Your task to perform on an android device: Open Yahoo.com Image 0: 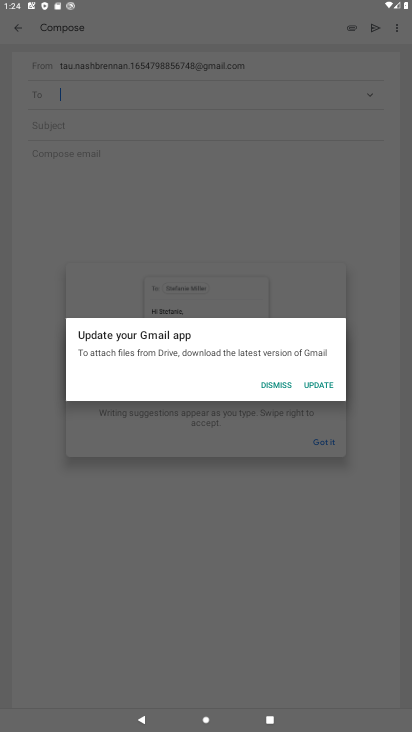
Step 0: press home button
Your task to perform on an android device: Open Yahoo.com Image 1: 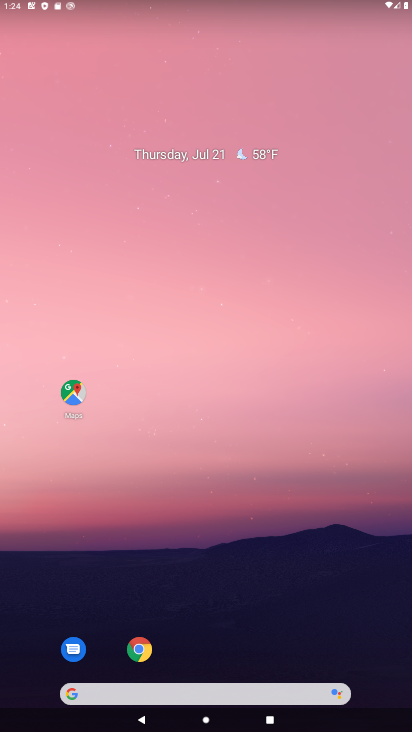
Step 1: drag from (288, 657) to (297, 90)
Your task to perform on an android device: Open Yahoo.com Image 2: 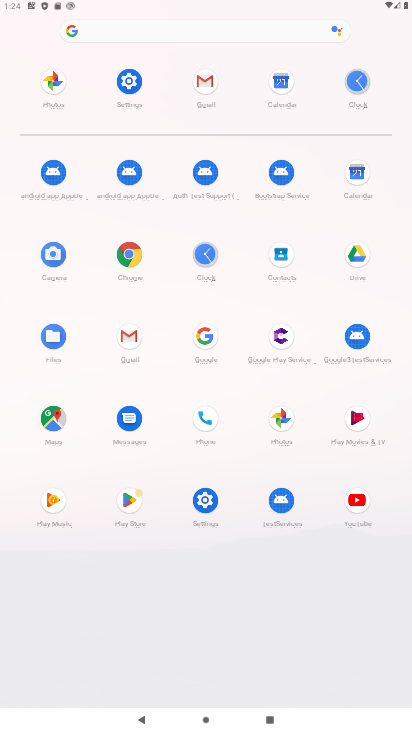
Step 2: click (120, 24)
Your task to perform on an android device: Open Yahoo.com Image 3: 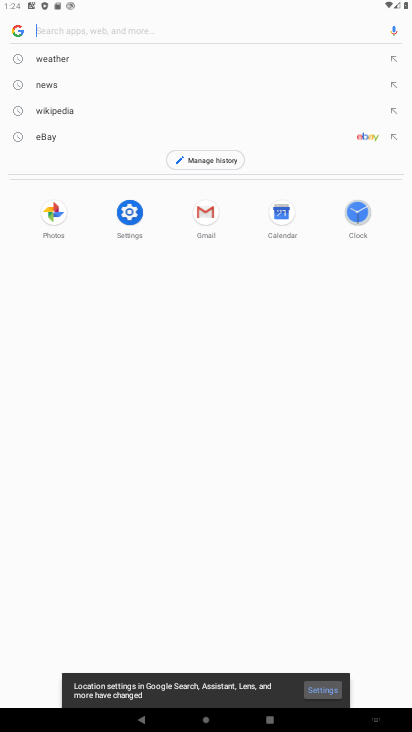
Step 3: type "yahho.com"
Your task to perform on an android device: Open Yahoo.com Image 4: 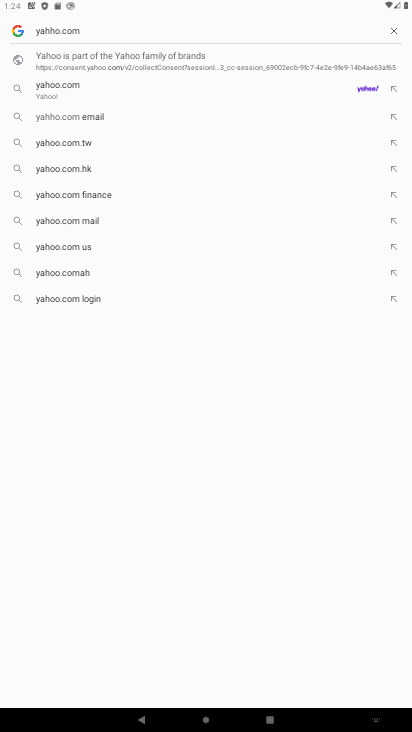
Step 4: click (126, 64)
Your task to perform on an android device: Open Yahoo.com Image 5: 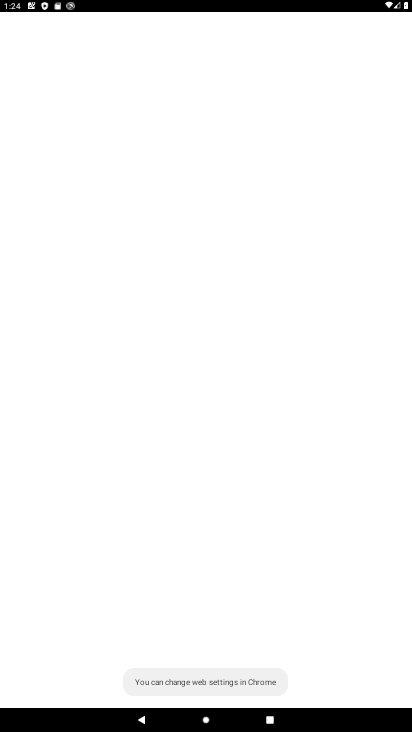
Step 5: task complete